Your task to perform on an android device: open device folders in google photos Image 0: 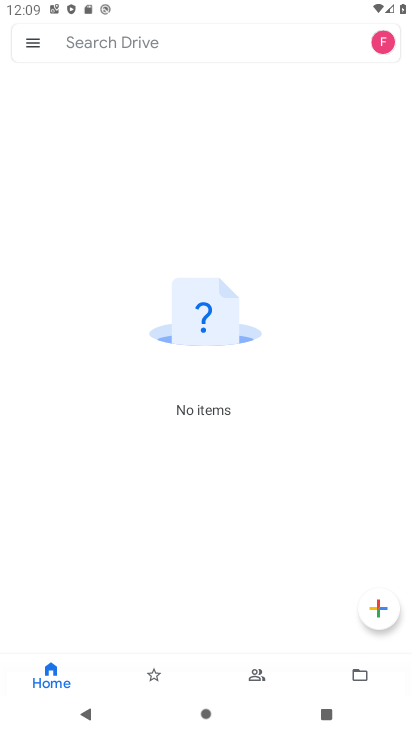
Step 0: press home button
Your task to perform on an android device: open device folders in google photos Image 1: 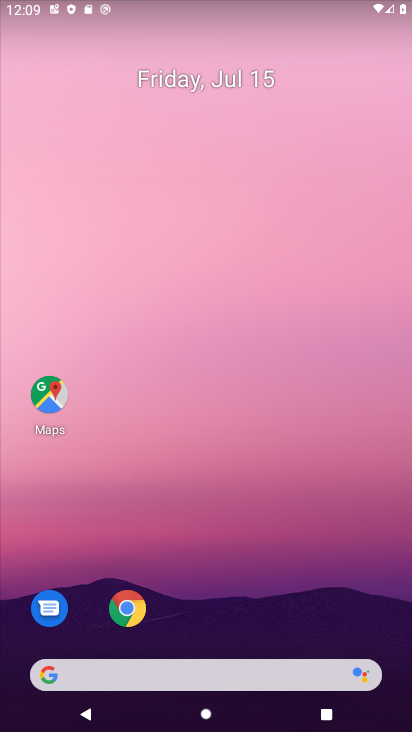
Step 1: drag from (206, 657) to (201, 68)
Your task to perform on an android device: open device folders in google photos Image 2: 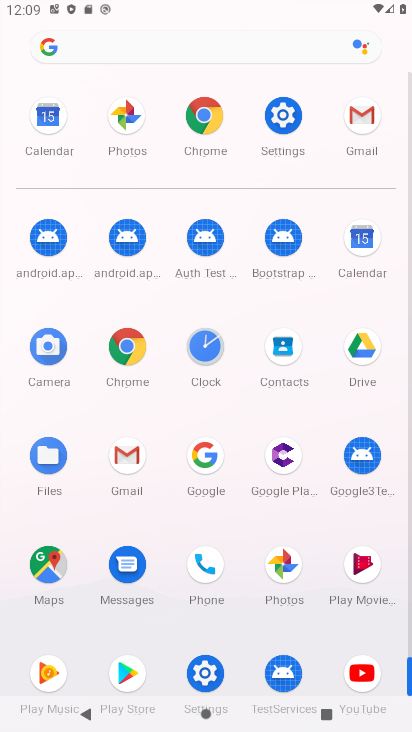
Step 2: click (289, 567)
Your task to perform on an android device: open device folders in google photos Image 3: 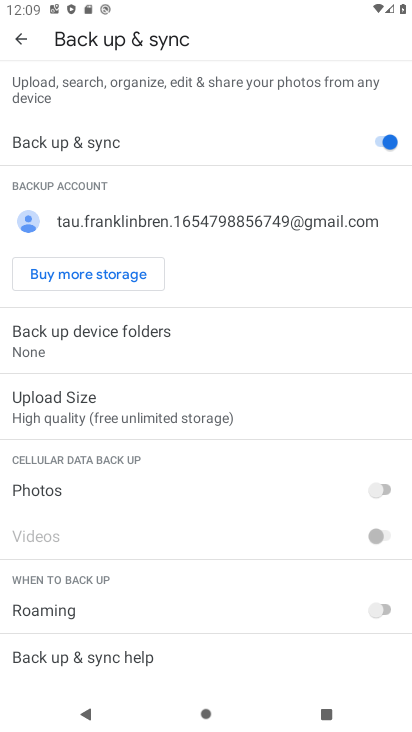
Step 3: press back button
Your task to perform on an android device: open device folders in google photos Image 4: 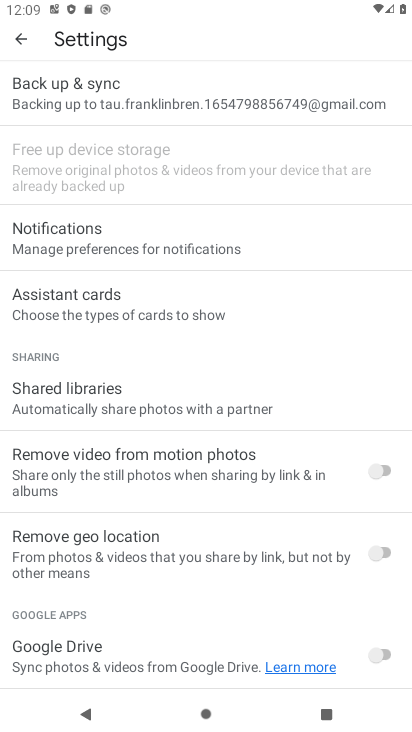
Step 4: press back button
Your task to perform on an android device: open device folders in google photos Image 5: 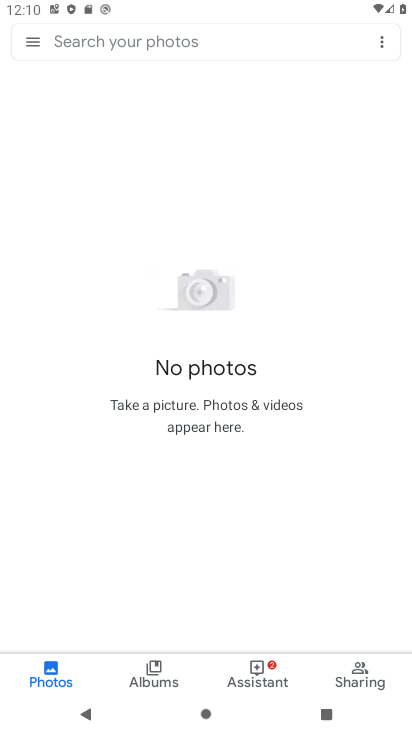
Step 5: click (37, 42)
Your task to perform on an android device: open device folders in google photos Image 6: 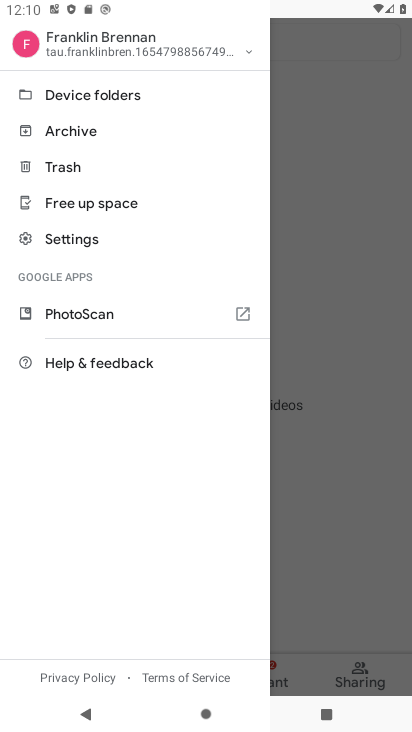
Step 6: click (88, 92)
Your task to perform on an android device: open device folders in google photos Image 7: 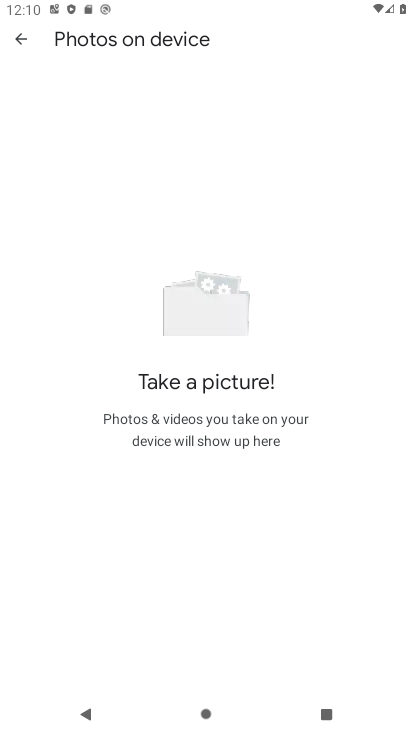
Step 7: task complete